Your task to perform on an android device: show emergency info Image 0: 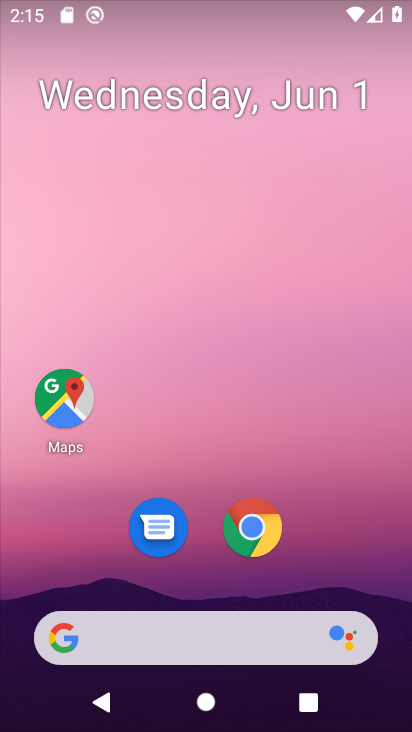
Step 0: drag from (238, 586) to (229, 0)
Your task to perform on an android device: show emergency info Image 1: 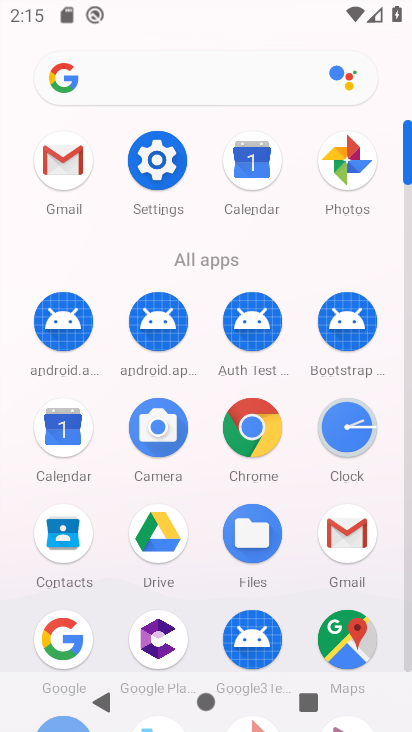
Step 1: click (167, 151)
Your task to perform on an android device: show emergency info Image 2: 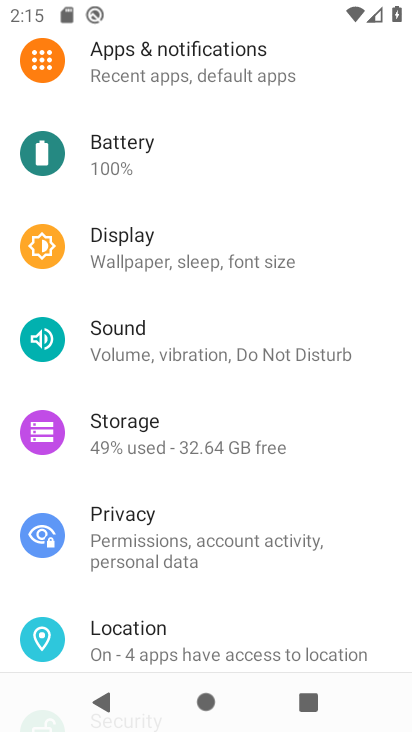
Step 2: drag from (228, 461) to (275, 67)
Your task to perform on an android device: show emergency info Image 3: 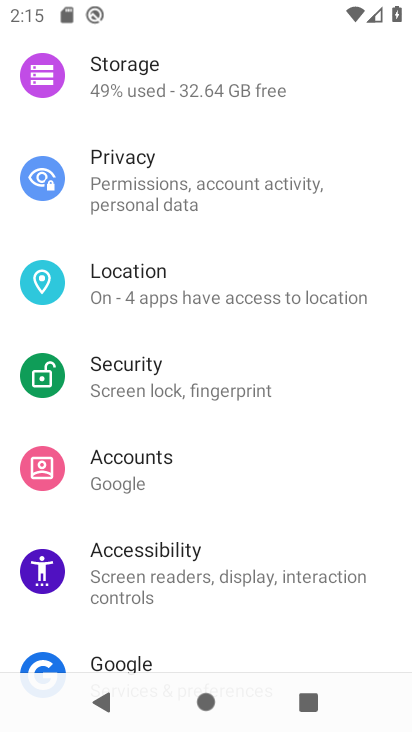
Step 3: drag from (213, 454) to (281, 150)
Your task to perform on an android device: show emergency info Image 4: 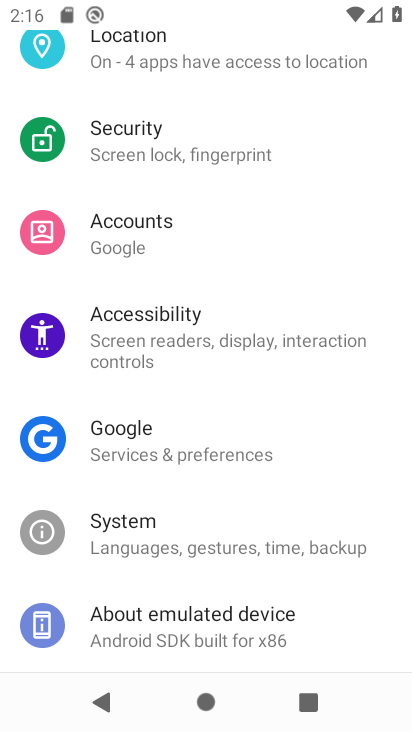
Step 4: click (181, 614)
Your task to perform on an android device: show emergency info Image 5: 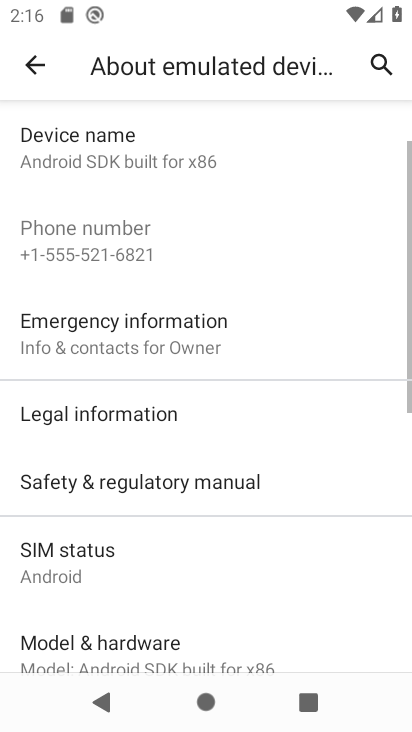
Step 5: click (162, 330)
Your task to perform on an android device: show emergency info Image 6: 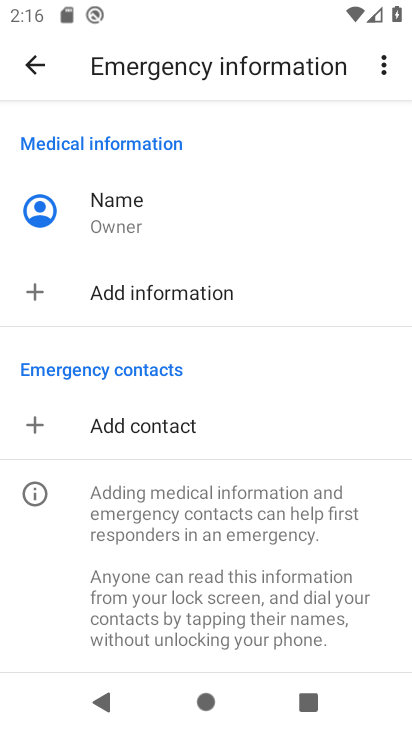
Step 6: task complete